Your task to perform on an android device: change alarm snooze length Image 0: 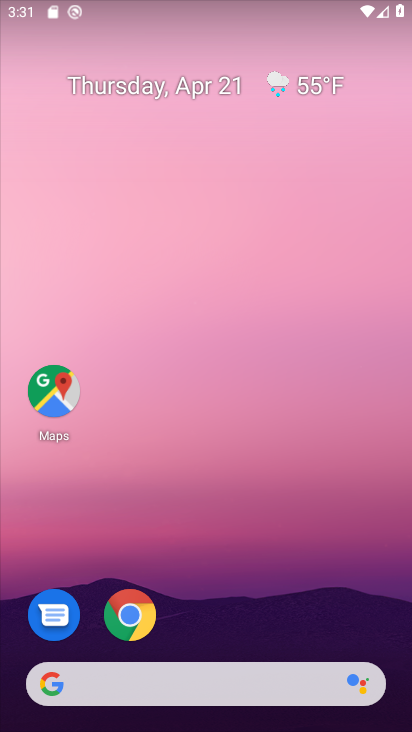
Step 0: drag from (354, 279) to (368, 187)
Your task to perform on an android device: change alarm snooze length Image 1: 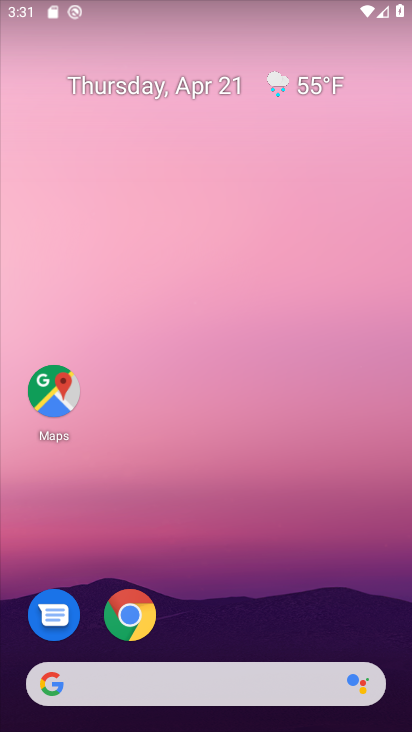
Step 1: drag from (340, 504) to (382, 25)
Your task to perform on an android device: change alarm snooze length Image 2: 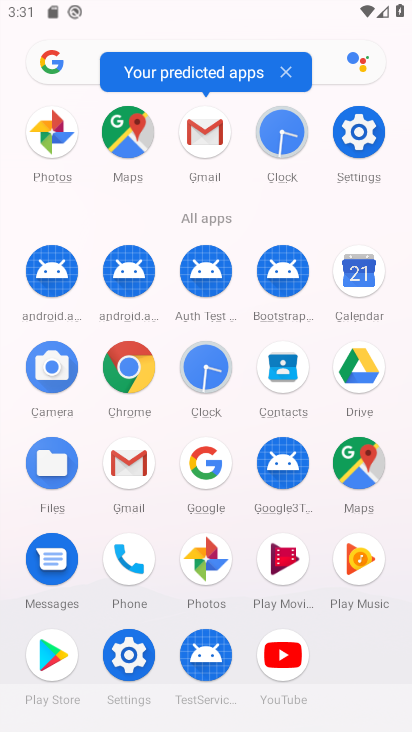
Step 2: click (356, 120)
Your task to perform on an android device: change alarm snooze length Image 3: 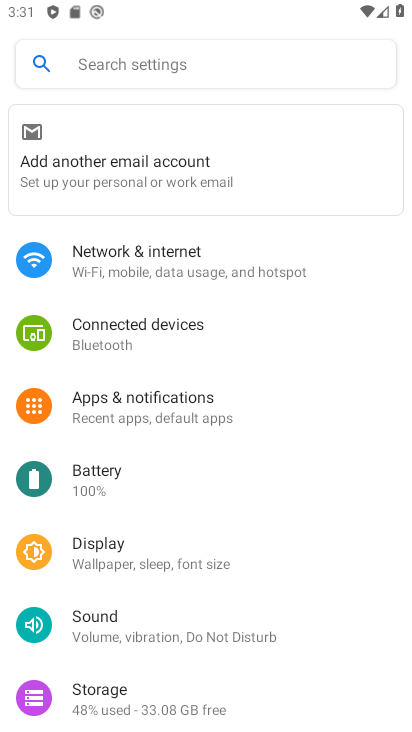
Step 3: press home button
Your task to perform on an android device: change alarm snooze length Image 4: 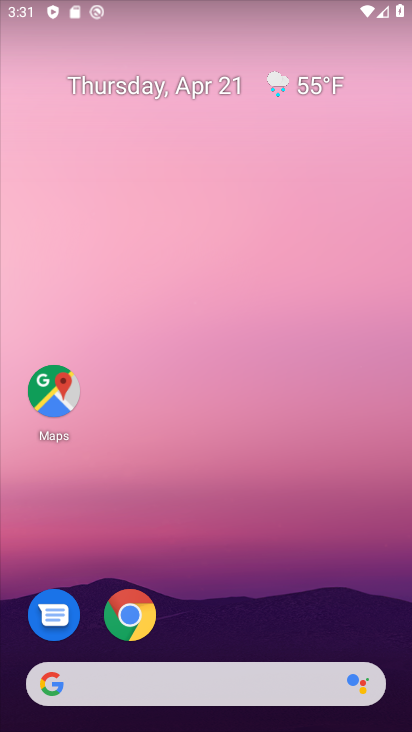
Step 4: drag from (318, 459) to (365, 86)
Your task to perform on an android device: change alarm snooze length Image 5: 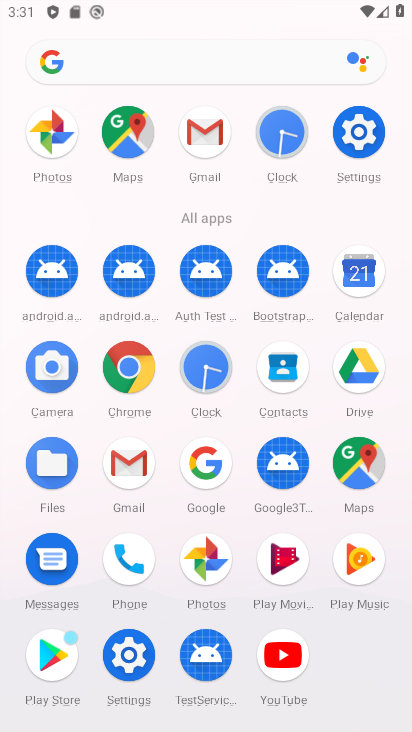
Step 5: click (296, 132)
Your task to perform on an android device: change alarm snooze length Image 6: 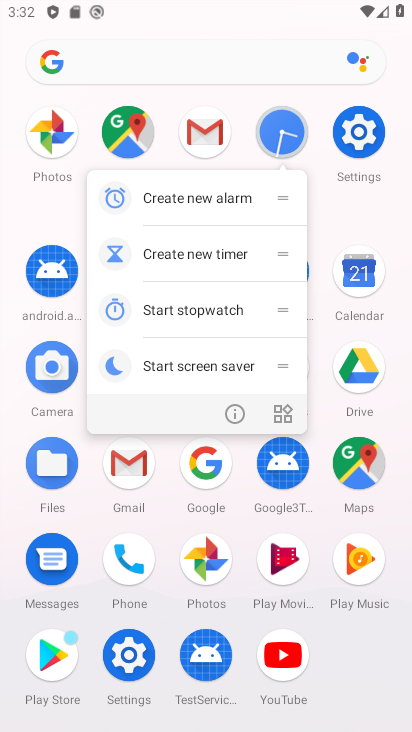
Step 6: click (372, 206)
Your task to perform on an android device: change alarm snooze length Image 7: 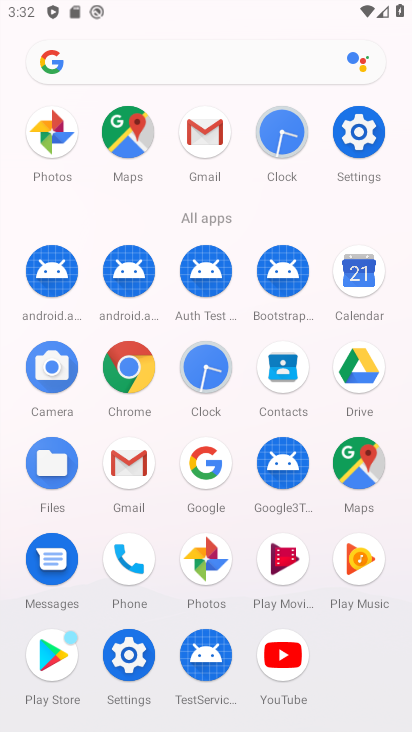
Step 7: click (284, 126)
Your task to perform on an android device: change alarm snooze length Image 8: 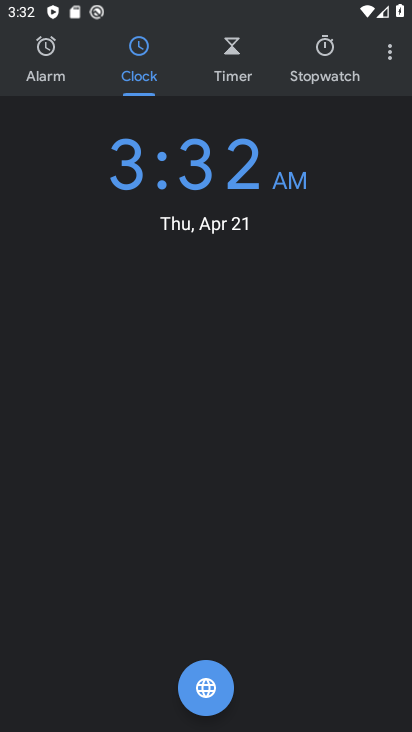
Step 8: click (392, 51)
Your task to perform on an android device: change alarm snooze length Image 9: 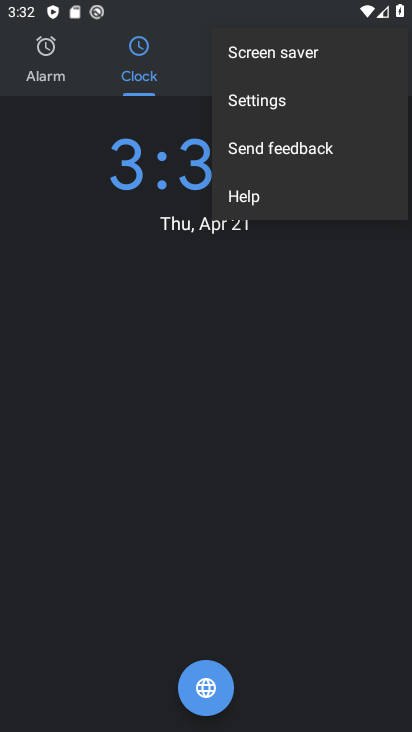
Step 9: click (265, 101)
Your task to perform on an android device: change alarm snooze length Image 10: 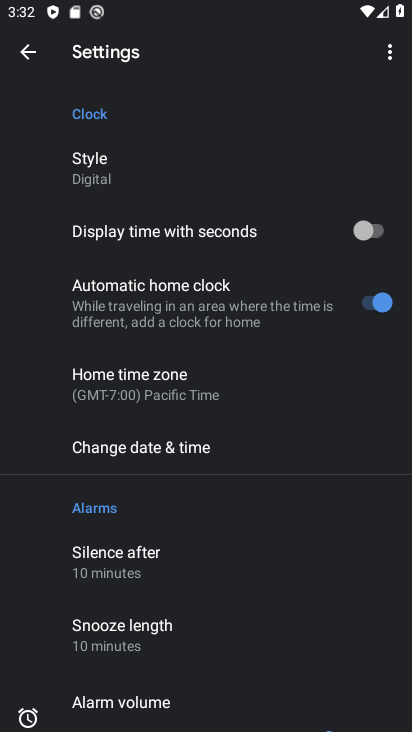
Step 10: click (170, 619)
Your task to perform on an android device: change alarm snooze length Image 11: 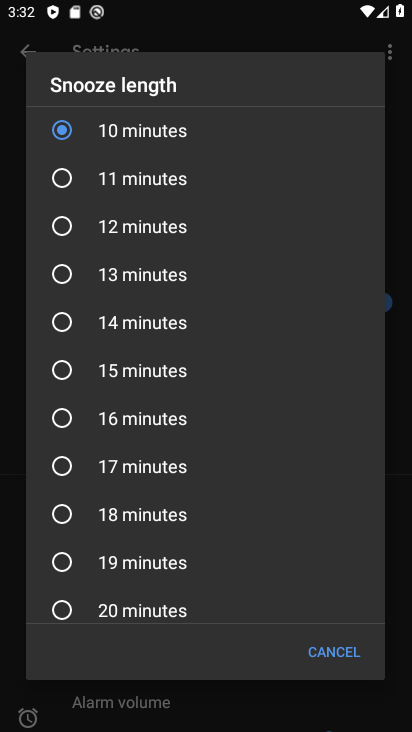
Step 11: click (150, 194)
Your task to perform on an android device: change alarm snooze length Image 12: 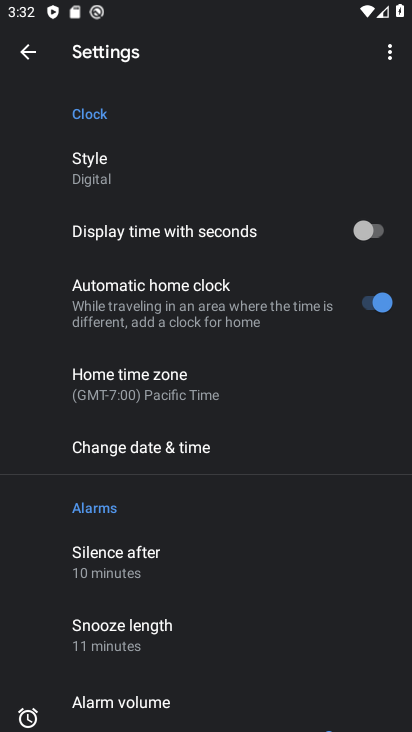
Step 12: task complete